Your task to perform on an android device: visit the assistant section in the google photos Image 0: 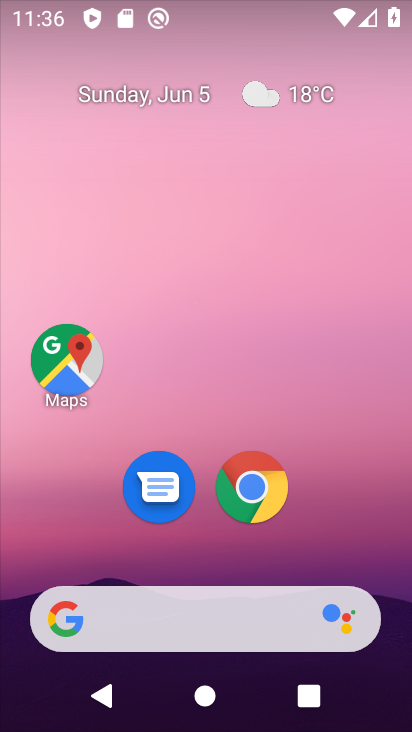
Step 0: drag from (327, 531) to (347, 188)
Your task to perform on an android device: visit the assistant section in the google photos Image 1: 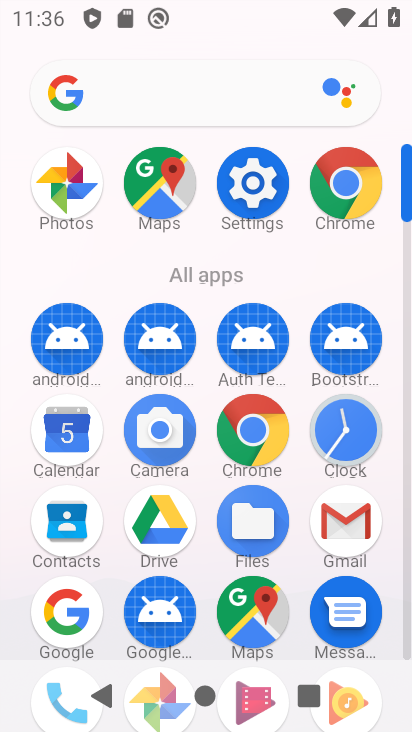
Step 1: drag from (212, 643) to (253, 333)
Your task to perform on an android device: visit the assistant section in the google photos Image 2: 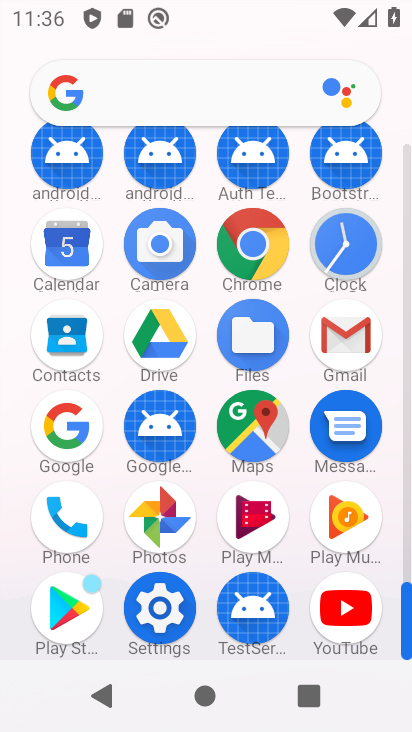
Step 2: click (173, 524)
Your task to perform on an android device: visit the assistant section in the google photos Image 3: 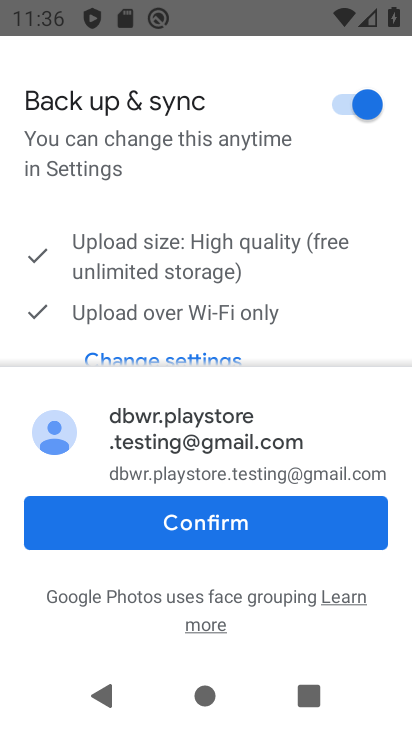
Step 3: click (233, 508)
Your task to perform on an android device: visit the assistant section in the google photos Image 4: 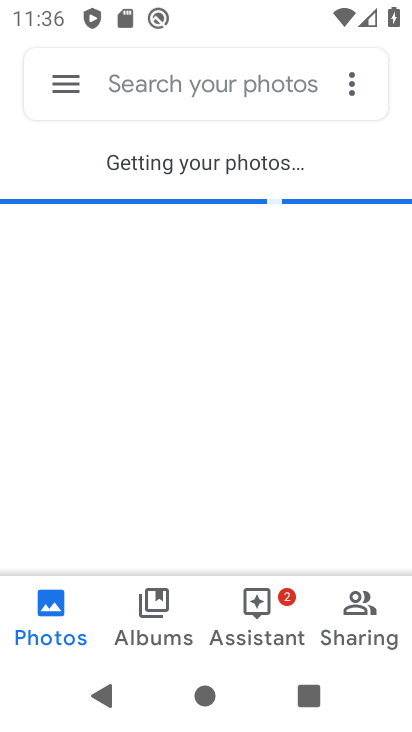
Step 4: click (257, 614)
Your task to perform on an android device: visit the assistant section in the google photos Image 5: 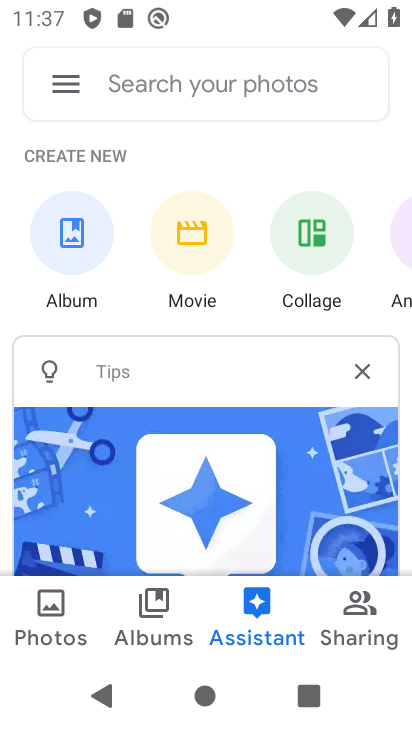
Step 5: task complete